Your task to perform on an android device: Open Google Chrome Image 0: 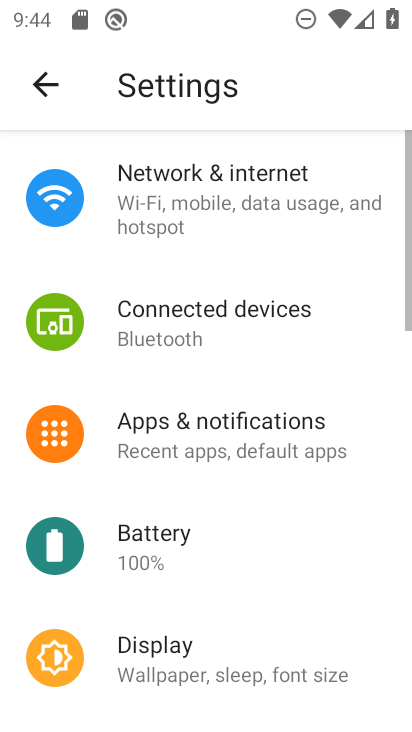
Step 0: press home button
Your task to perform on an android device: Open Google Chrome Image 1: 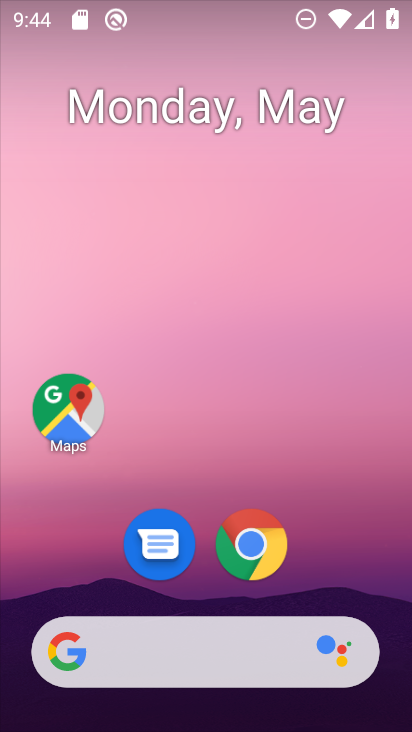
Step 1: drag from (359, 566) to (315, 162)
Your task to perform on an android device: Open Google Chrome Image 2: 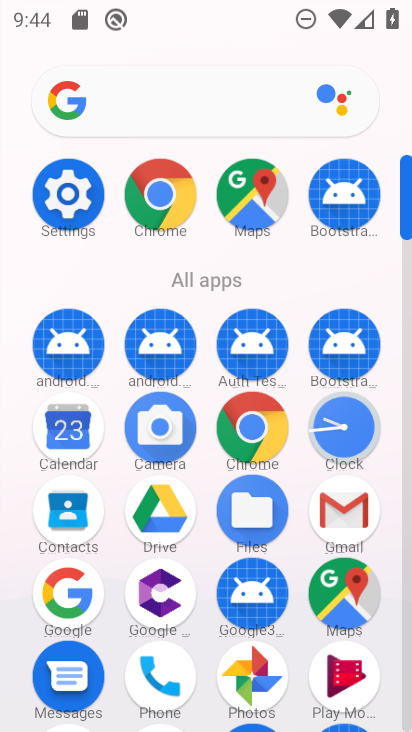
Step 2: click (268, 443)
Your task to perform on an android device: Open Google Chrome Image 3: 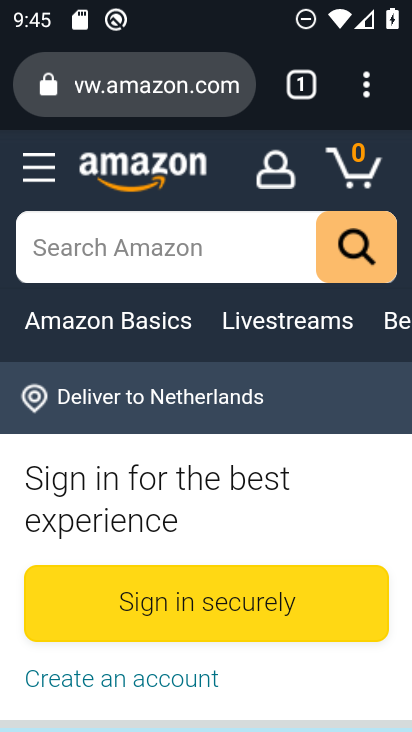
Step 3: task complete